Your task to perform on an android device: manage bookmarks in the chrome app Image 0: 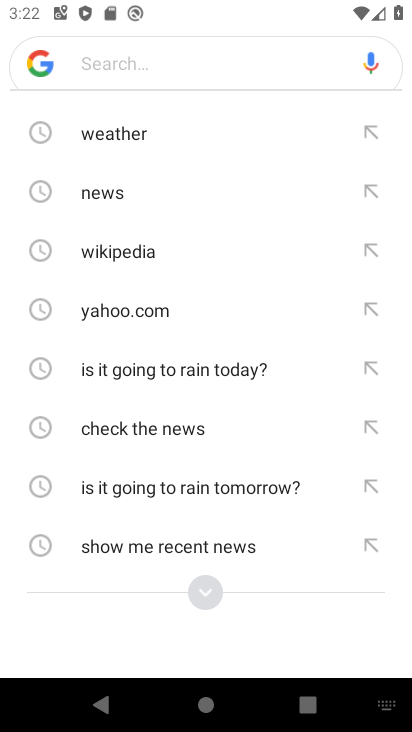
Step 0: press home button
Your task to perform on an android device: manage bookmarks in the chrome app Image 1: 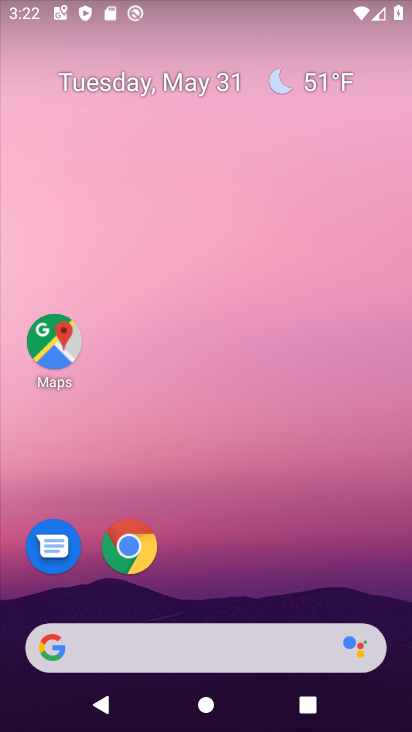
Step 1: click (134, 550)
Your task to perform on an android device: manage bookmarks in the chrome app Image 2: 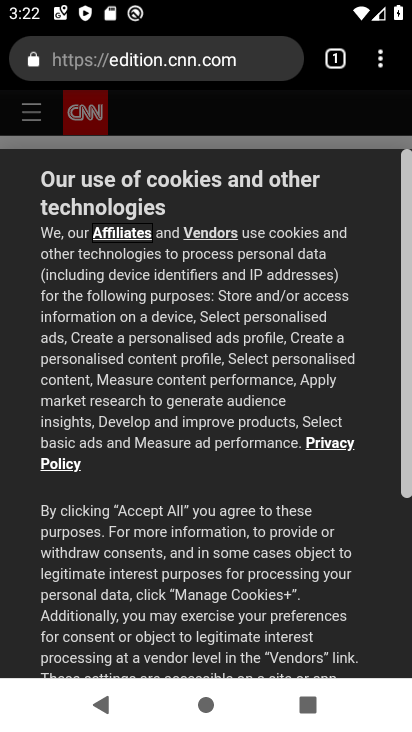
Step 2: click (380, 56)
Your task to perform on an android device: manage bookmarks in the chrome app Image 3: 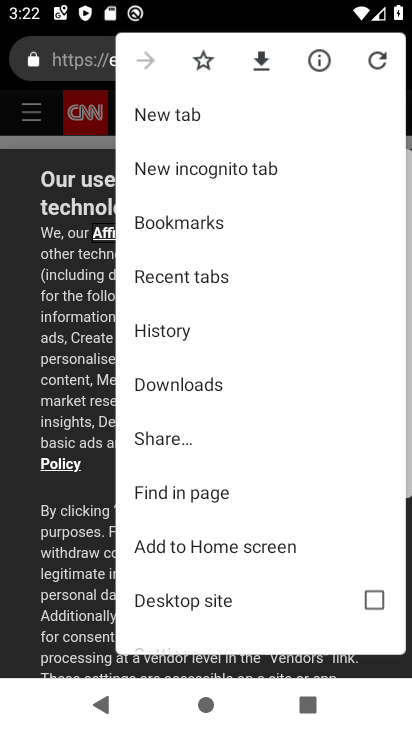
Step 3: click (203, 228)
Your task to perform on an android device: manage bookmarks in the chrome app Image 4: 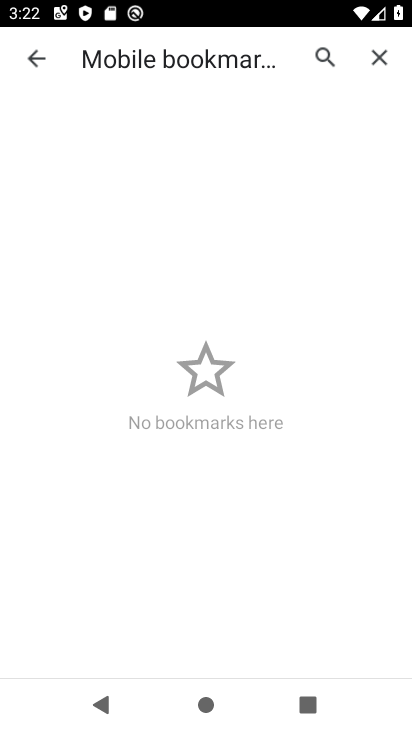
Step 4: task complete